Your task to perform on an android device: remove spam from my inbox in the gmail app Image 0: 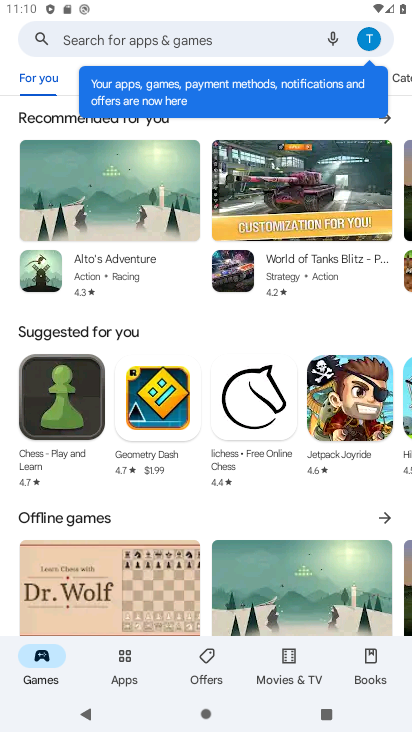
Step 0: press home button
Your task to perform on an android device: remove spam from my inbox in the gmail app Image 1: 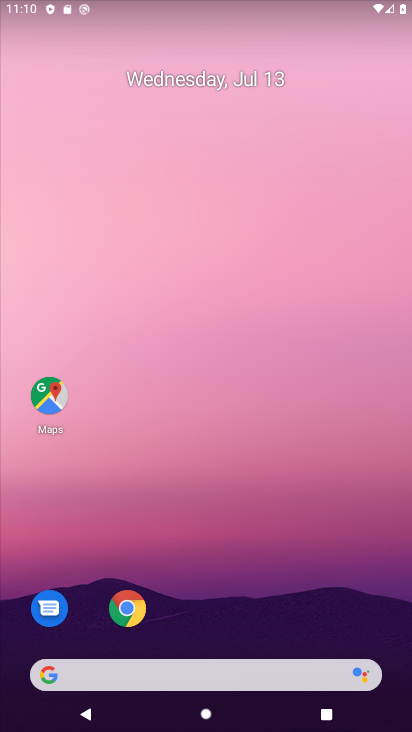
Step 1: drag from (302, 378) to (321, 277)
Your task to perform on an android device: remove spam from my inbox in the gmail app Image 2: 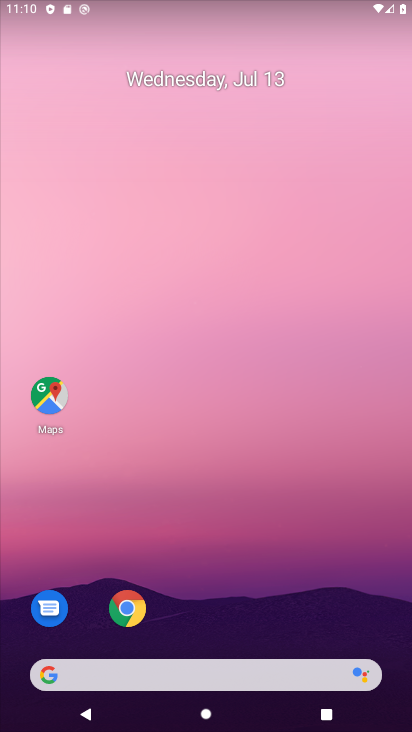
Step 2: drag from (250, 604) to (297, 207)
Your task to perform on an android device: remove spam from my inbox in the gmail app Image 3: 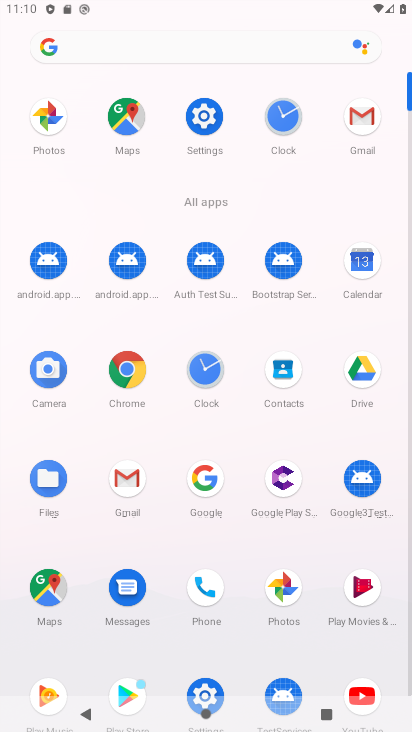
Step 3: click (361, 123)
Your task to perform on an android device: remove spam from my inbox in the gmail app Image 4: 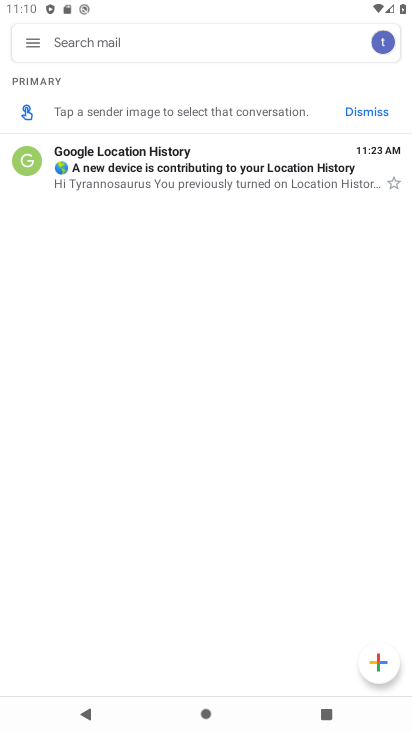
Step 4: click (33, 50)
Your task to perform on an android device: remove spam from my inbox in the gmail app Image 5: 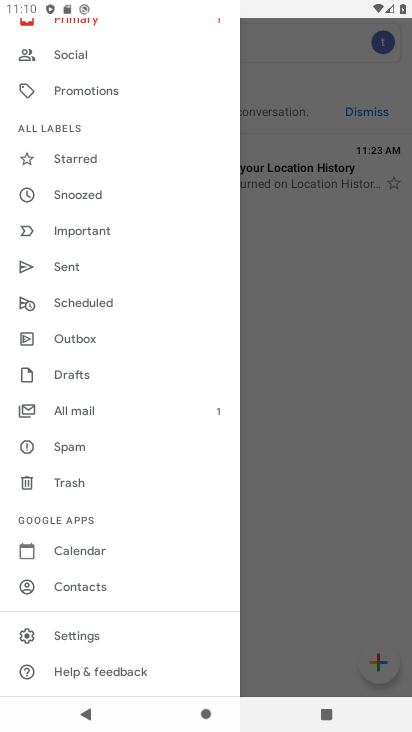
Step 5: click (96, 446)
Your task to perform on an android device: remove spam from my inbox in the gmail app Image 6: 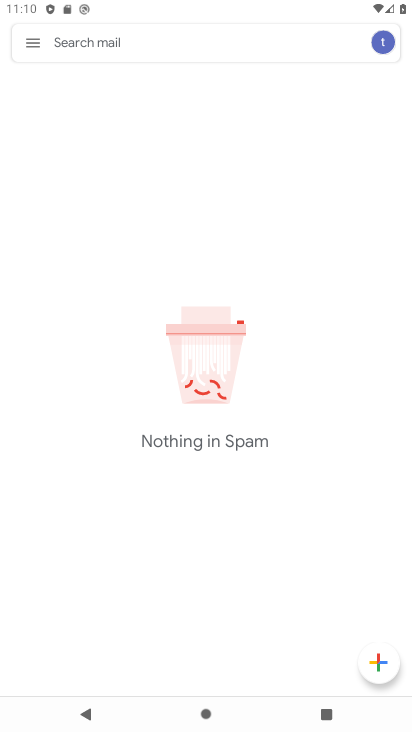
Step 6: task complete